Your task to perform on an android device: Search for Mexican restaurants on Maps Image 0: 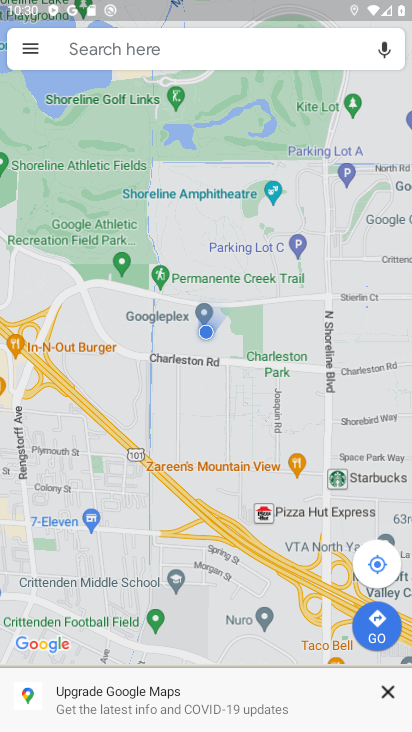
Step 0: click (174, 48)
Your task to perform on an android device: Search for Mexican restaurants on Maps Image 1: 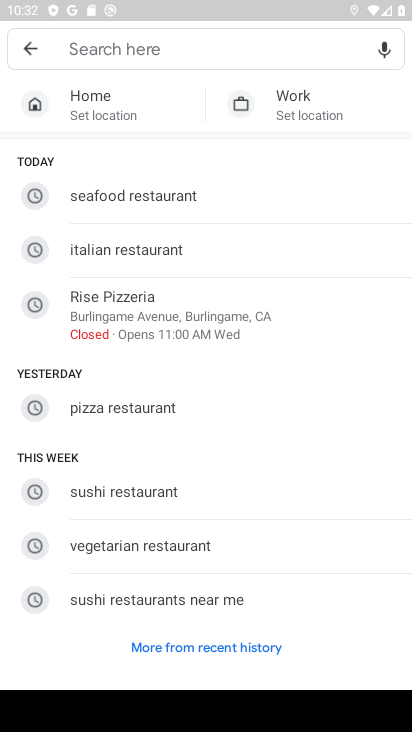
Step 1: type "mexican rest"
Your task to perform on an android device: Search for Mexican restaurants on Maps Image 2: 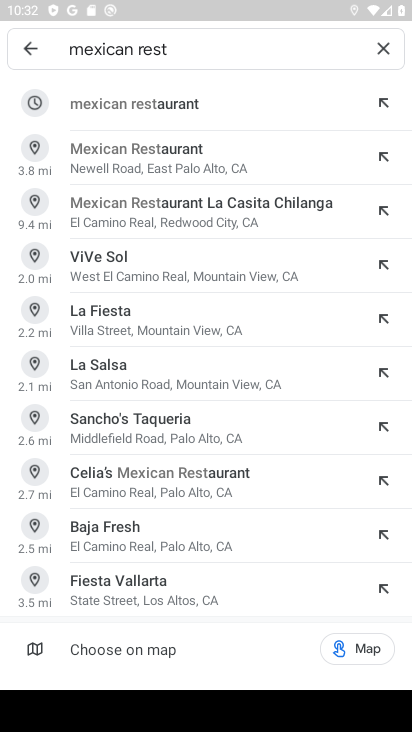
Step 2: click (258, 118)
Your task to perform on an android device: Search for Mexican restaurants on Maps Image 3: 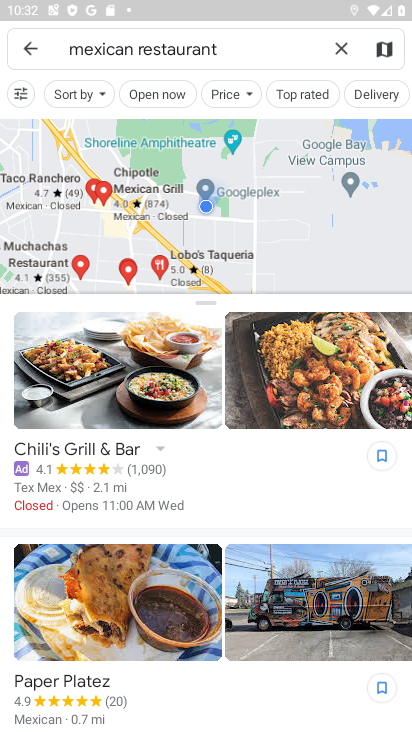
Step 3: task complete